Your task to perform on an android device: allow cookies in the chrome app Image 0: 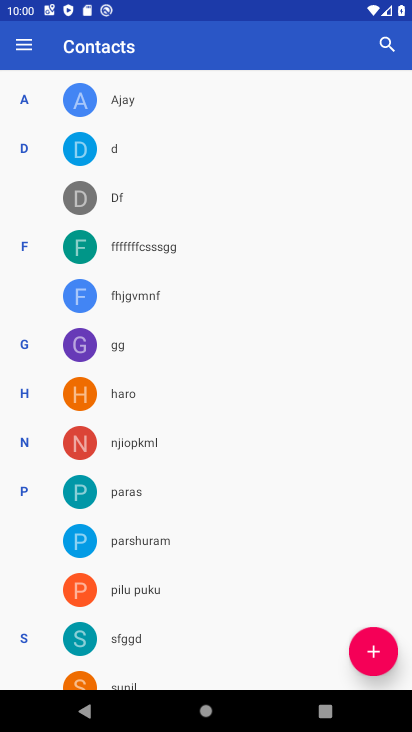
Step 0: press home button
Your task to perform on an android device: allow cookies in the chrome app Image 1: 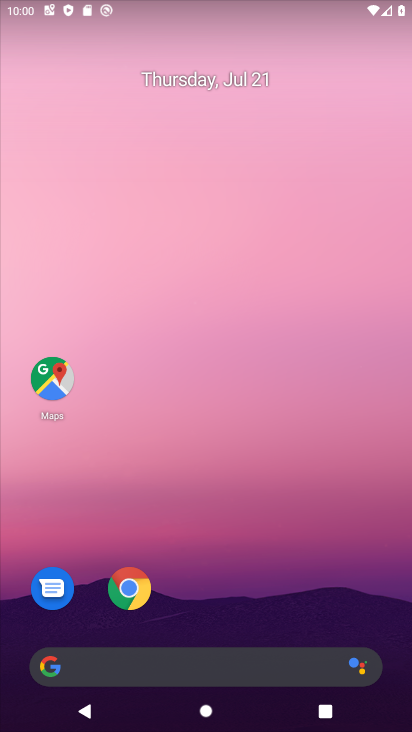
Step 1: click (122, 586)
Your task to perform on an android device: allow cookies in the chrome app Image 2: 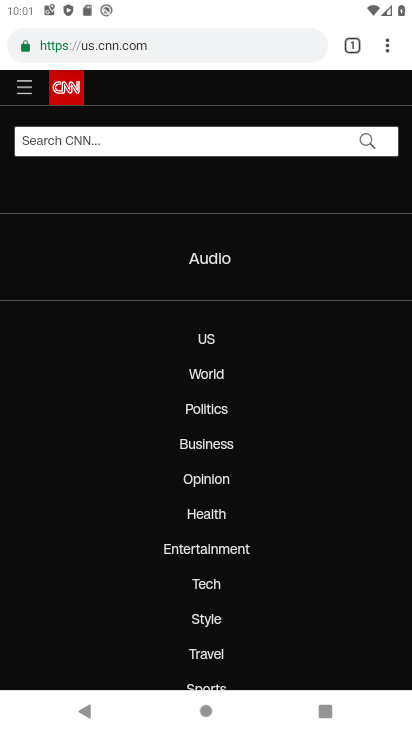
Step 2: click (389, 46)
Your task to perform on an android device: allow cookies in the chrome app Image 3: 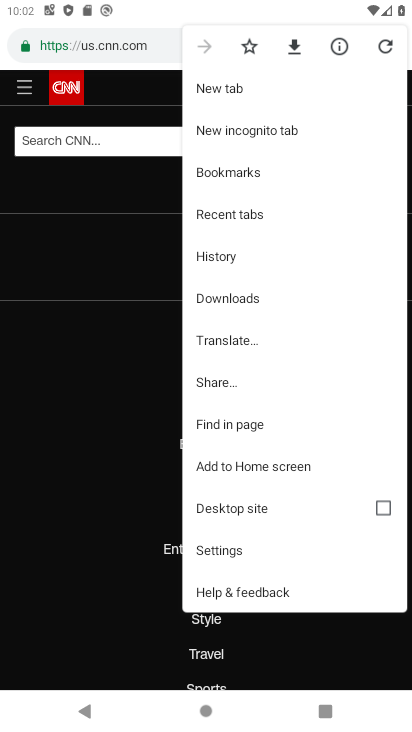
Step 3: click (225, 547)
Your task to perform on an android device: allow cookies in the chrome app Image 4: 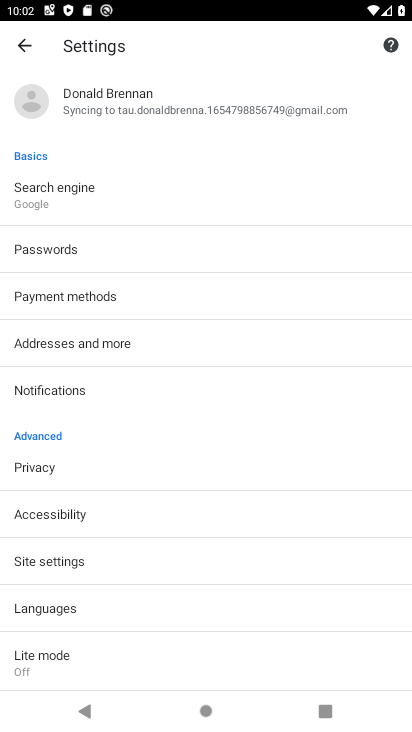
Step 4: click (54, 560)
Your task to perform on an android device: allow cookies in the chrome app Image 5: 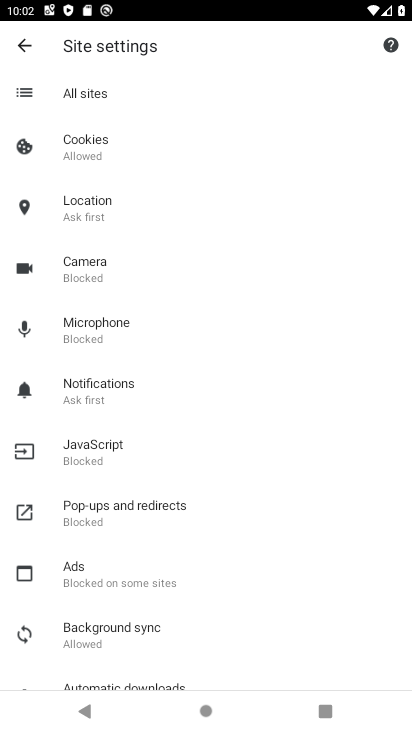
Step 5: click (74, 138)
Your task to perform on an android device: allow cookies in the chrome app Image 6: 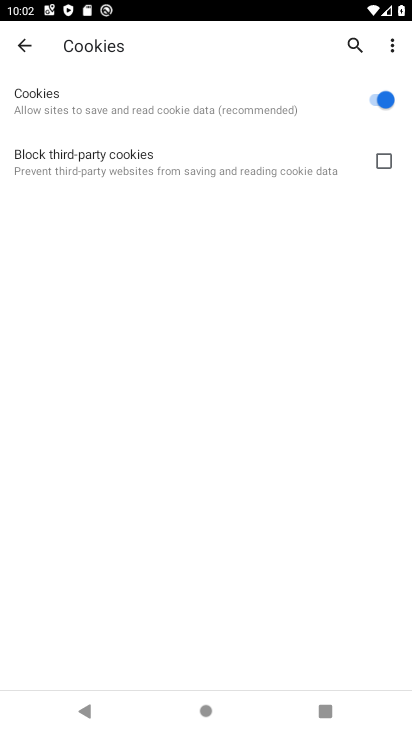
Step 6: task complete